Your task to perform on an android device: see creations saved in the google photos Image 0: 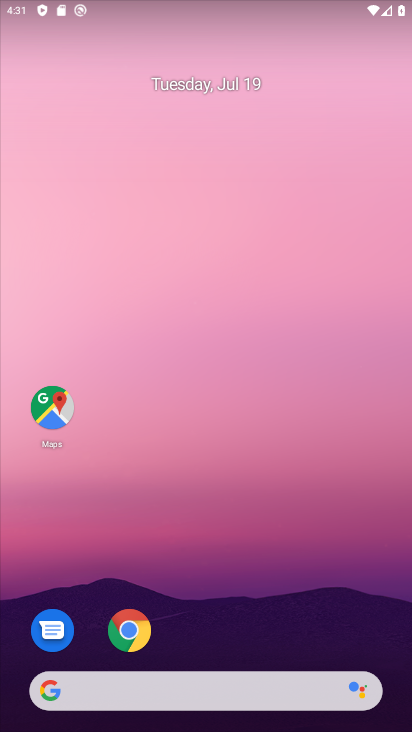
Step 0: click (133, 198)
Your task to perform on an android device: see creations saved in the google photos Image 1: 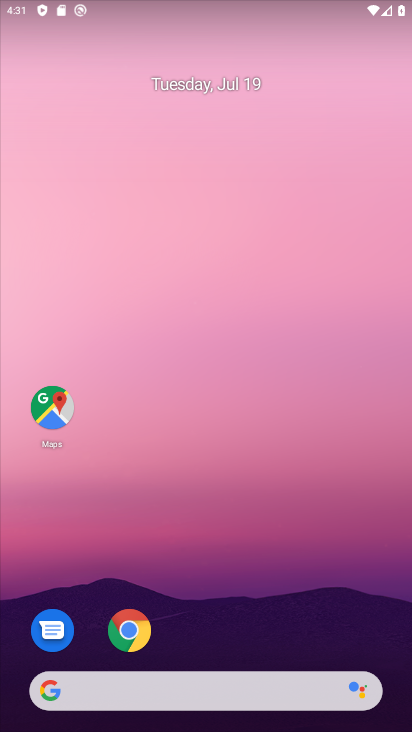
Step 1: drag from (212, 577) to (165, 172)
Your task to perform on an android device: see creations saved in the google photos Image 2: 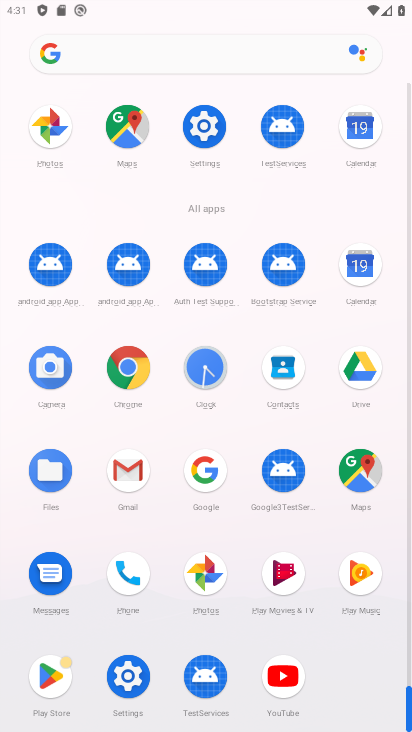
Step 2: click (212, 566)
Your task to perform on an android device: see creations saved in the google photos Image 3: 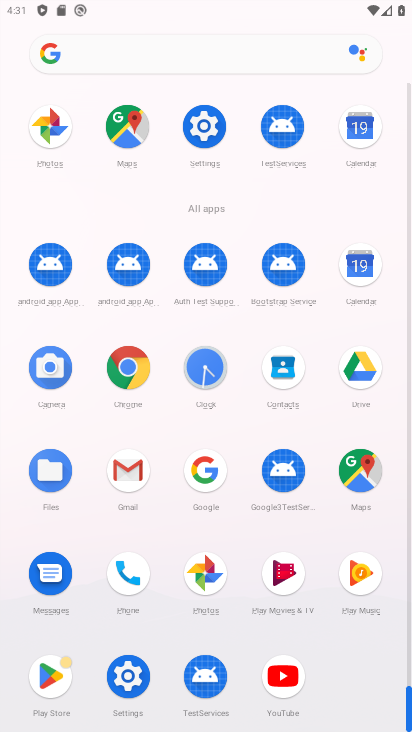
Step 3: click (212, 566)
Your task to perform on an android device: see creations saved in the google photos Image 4: 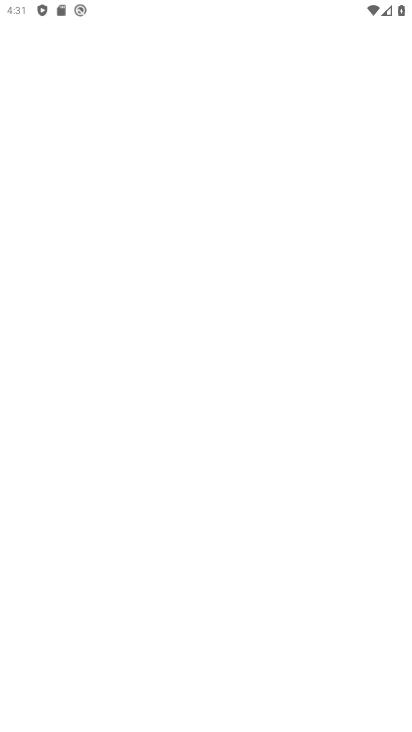
Step 4: click (212, 566)
Your task to perform on an android device: see creations saved in the google photos Image 5: 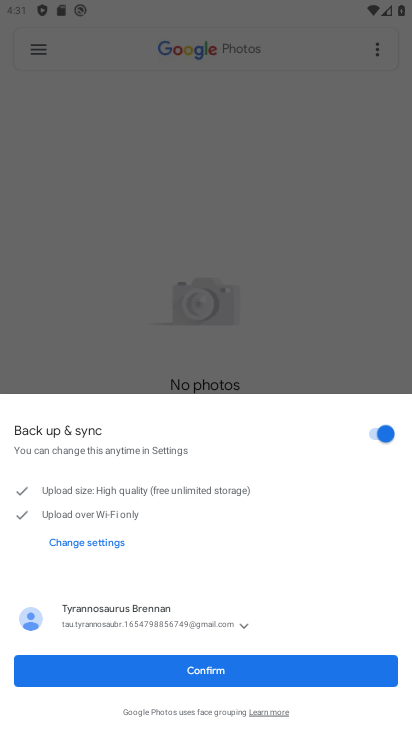
Step 5: click (226, 668)
Your task to perform on an android device: see creations saved in the google photos Image 6: 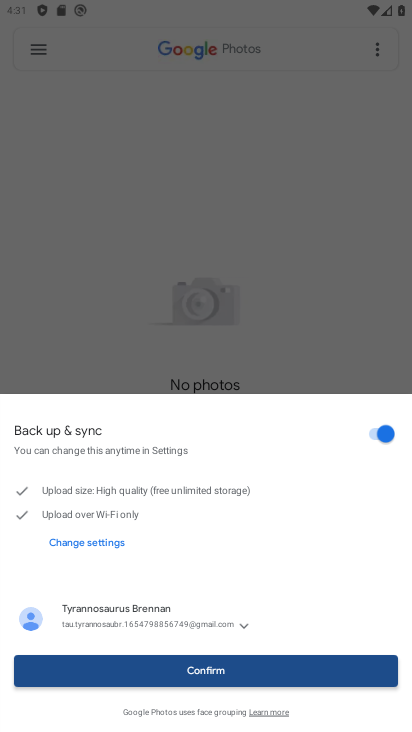
Step 6: click (226, 668)
Your task to perform on an android device: see creations saved in the google photos Image 7: 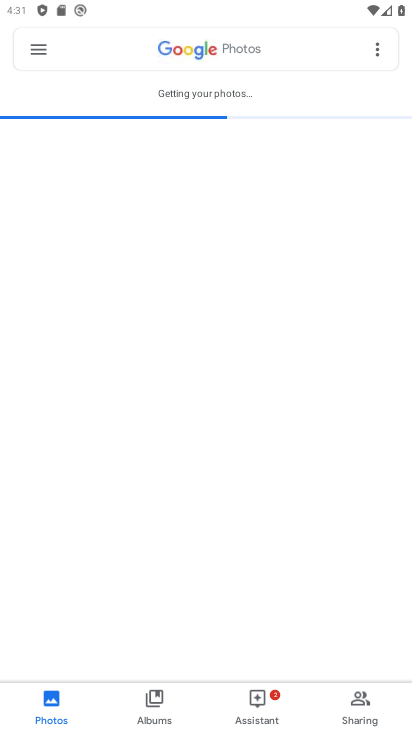
Step 7: click (226, 668)
Your task to perform on an android device: see creations saved in the google photos Image 8: 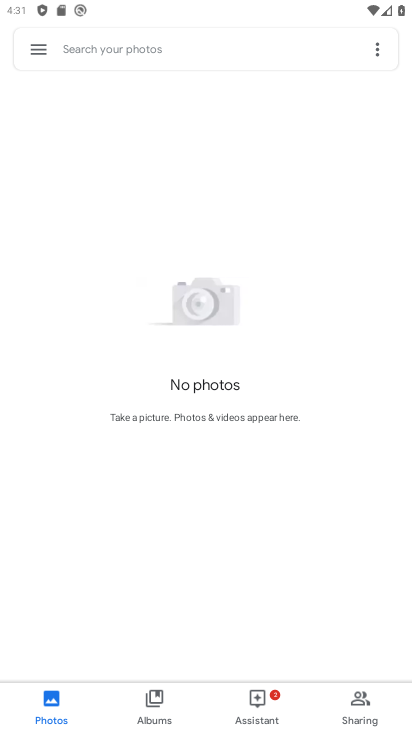
Step 8: task complete